Your task to perform on an android device: Open Chrome and go to the settings page Image 0: 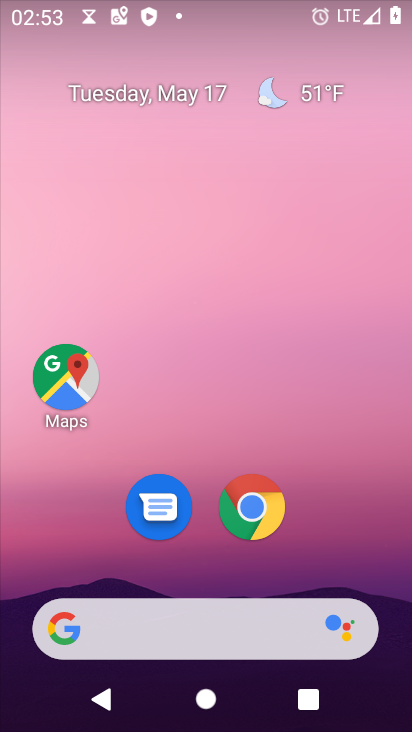
Step 0: click (251, 504)
Your task to perform on an android device: Open Chrome and go to the settings page Image 1: 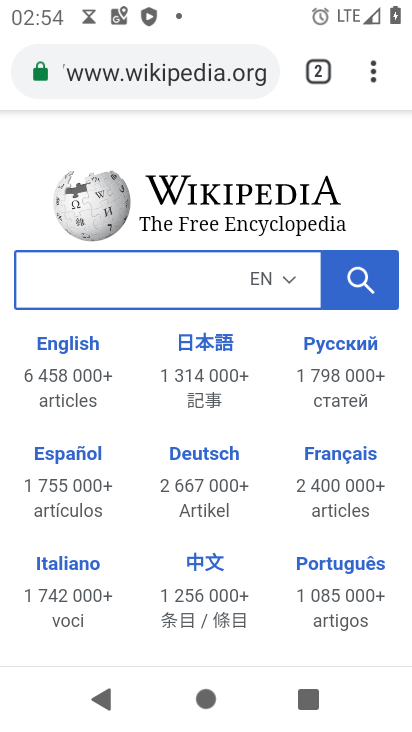
Step 1: click (368, 70)
Your task to perform on an android device: Open Chrome and go to the settings page Image 2: 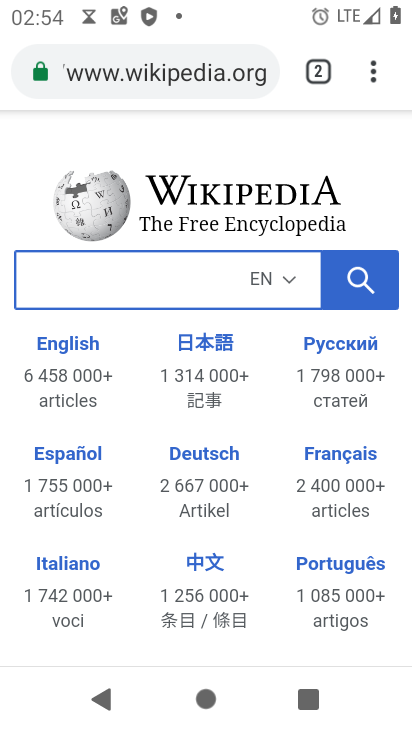
Step 2: click (376, 69)
Your task to perform on an android device: Open Chrome and go to the settings page Image 3: 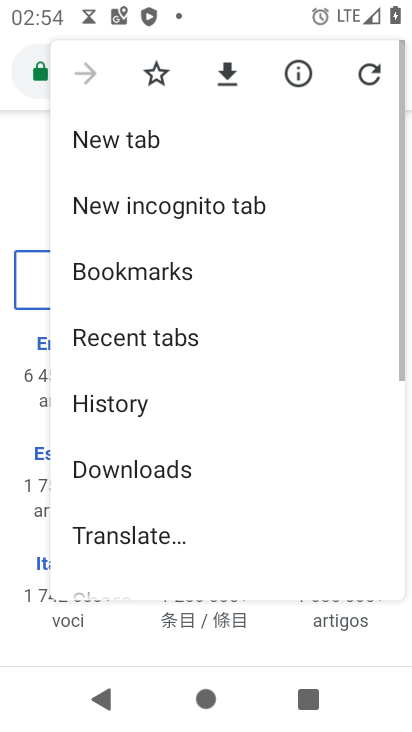
Step 3: drag from (211, 501) to (243, 374)
Your task to perform on an android device: Open Chrome and go to the settings page Image 4: 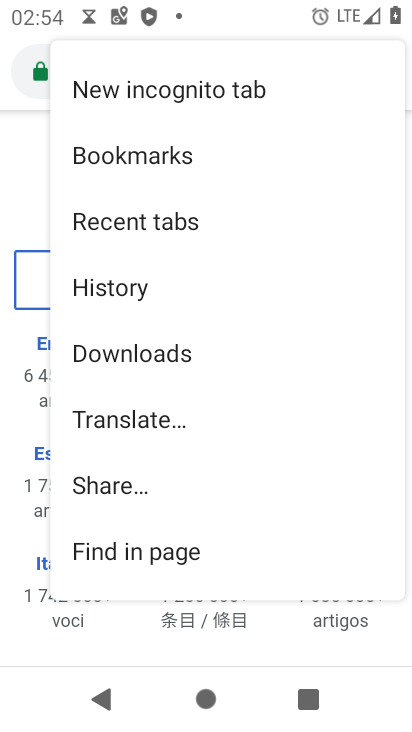
Step 4: drag from (184, 538) to (208, 389)
Your task to perform on an android device: Open Chrome and go to the settings page Image 5: 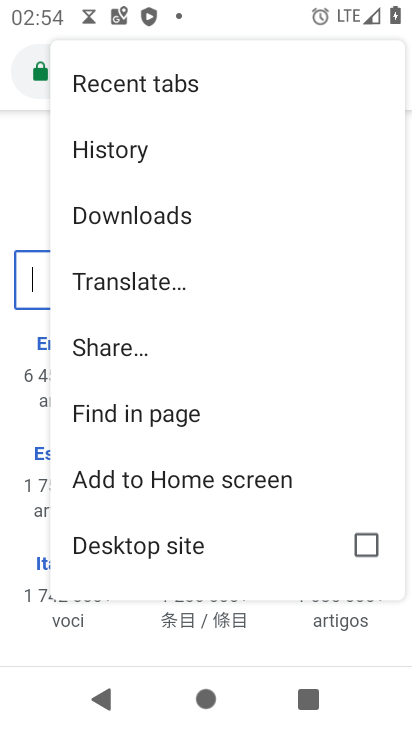
Step 5: drag from (193, 523) to (227, 319)
Your task to perform on an android device: Open Chrome and go to the settings page Image 6: 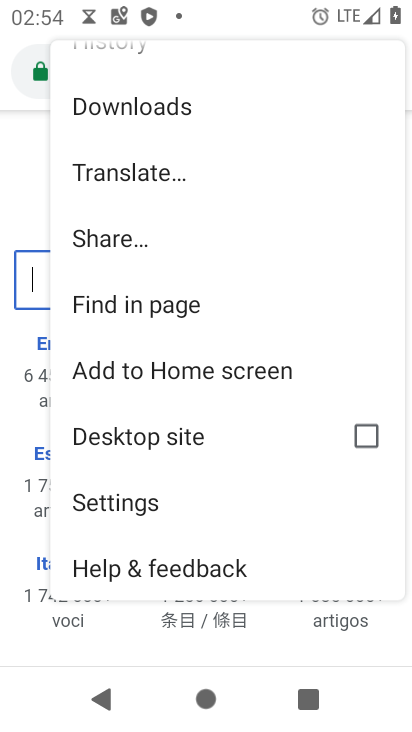
Step 6: click (191, 502)
Your task to perform on an android device: Open Chrome and go to the settings page Image 7: 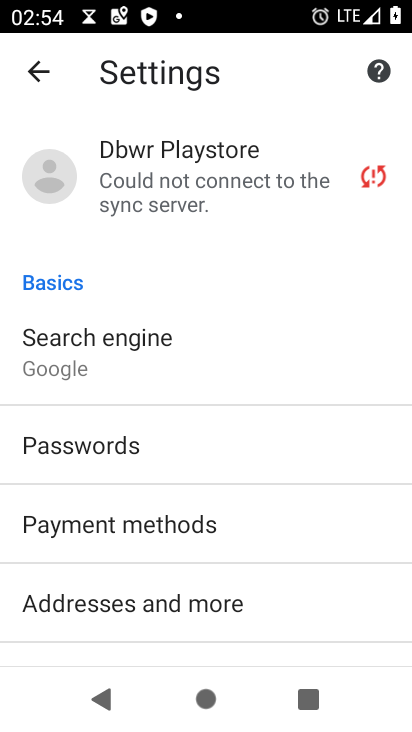
Step 7: task complete